Your task to perform on an android device: What's on my calendar today? Image 0: 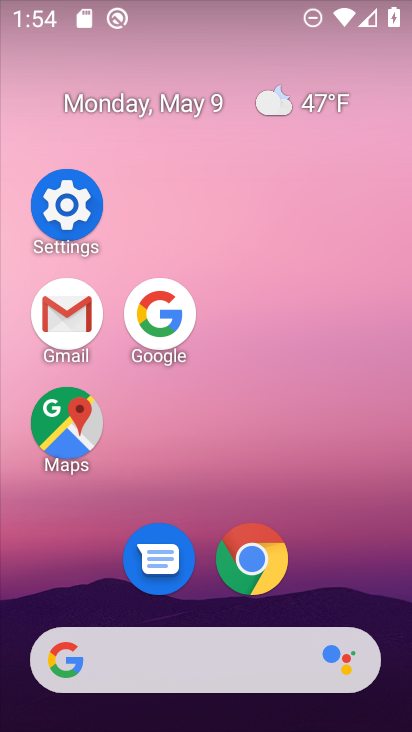
Step 0: drag from (331, 565) to (358, 213)
Your task to perform on an android device: What's on my calendar today? Image 1: 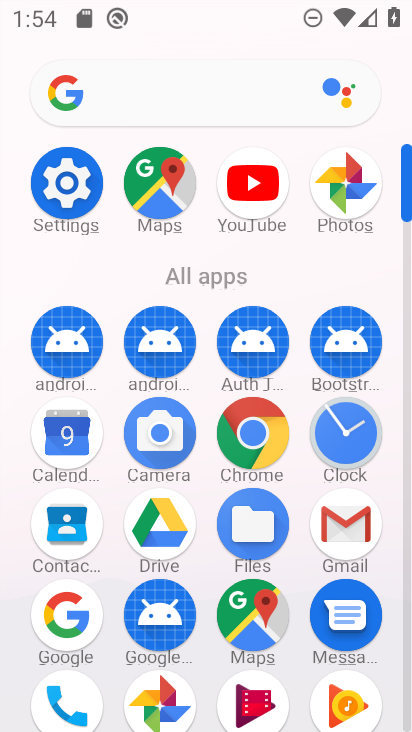
Step 1: drag from (59, 431) to (194, 251)
Your task to perform on an android device: What's on my calendar today? Image 2: 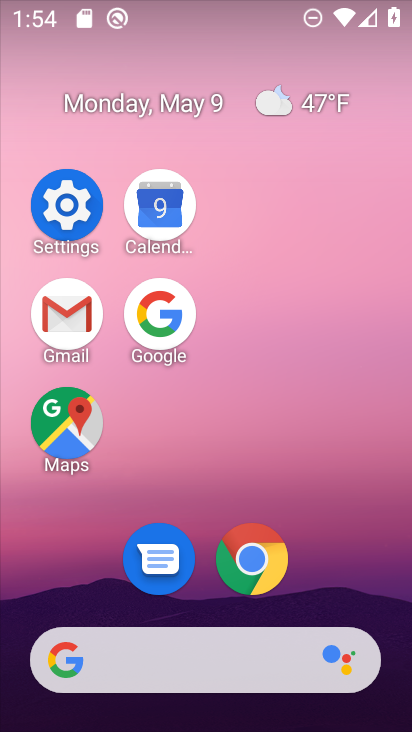
Step 2: click (167, 218)
Your task to perform on an android device: What's on my calendar today? Image 3: 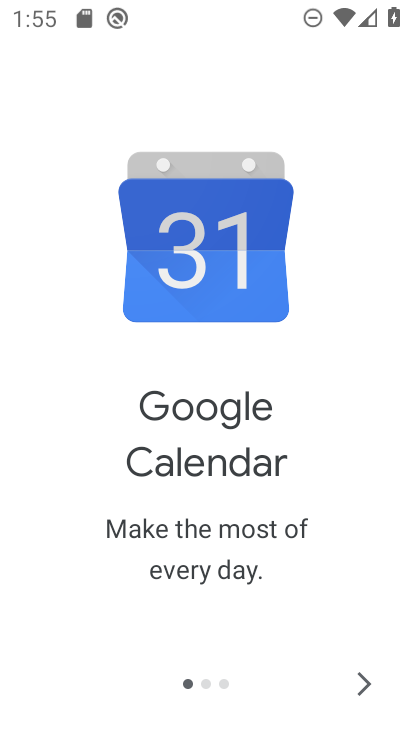
Step 3: click (371, 678)
Your task to perform on an android device: What's on my calendar today? Image 4: 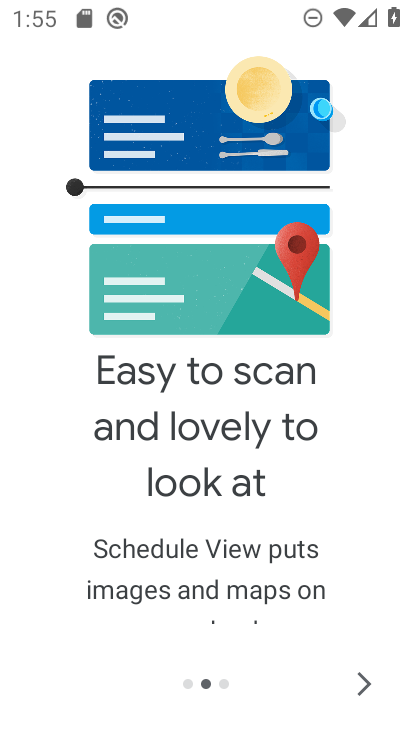
Step 4: click (373, 677)
Your task to perform on an android device: What's on my calendar today? Image 5: 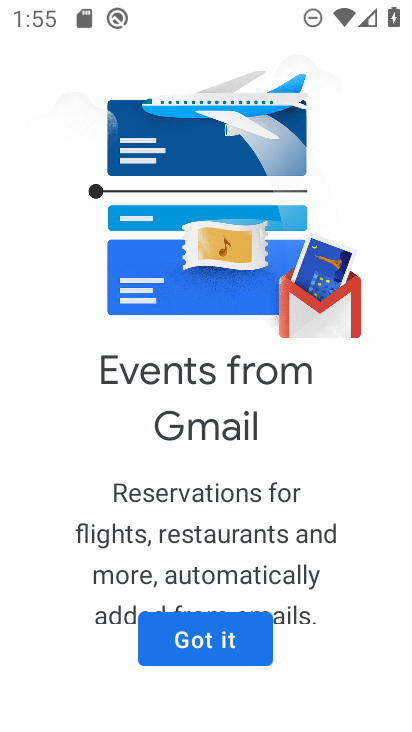
Step 5: click (243, 645)
Your task to perform on an android device: What's on my calendar today? Image 6: 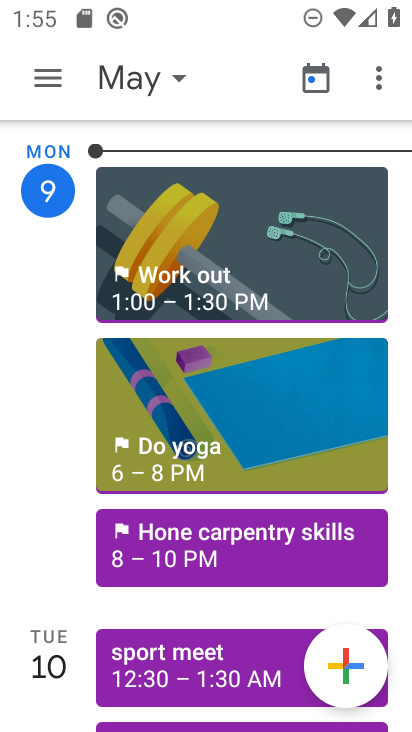
Step 6: task complete